Your task to perform on an android device: turn smart compose on in the gmail app Image 0: 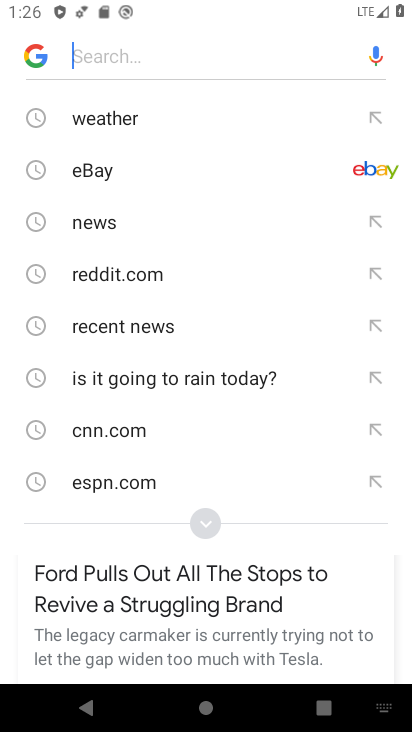
Step 0: press home button
Your task to perform on an android device: turn smart compose on in the gmail app Image 1: 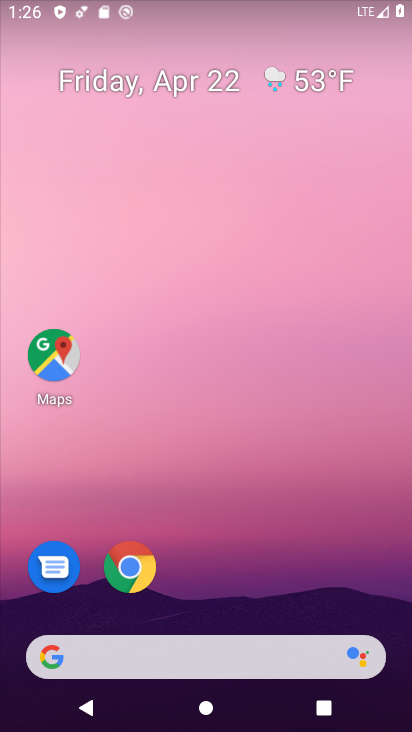
Step 1: drag from (370, 621) to (268, 117)
Your task to perform on an android device: turn smart compose on in the gmail app Image 2: 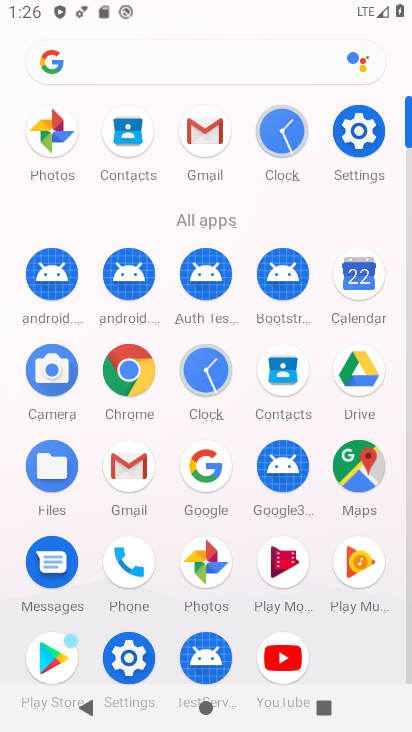
Step 2: click (122, 463)
Your task to perform on an android device: turn smart compose on in the gmail app Image 3: 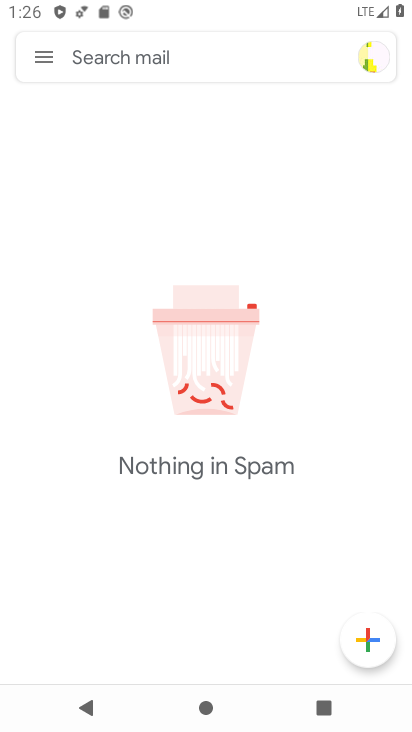
Step 3: click (42, 59)
Your task to perform on an android device: turn smart compose on in the gmail app Image 4: 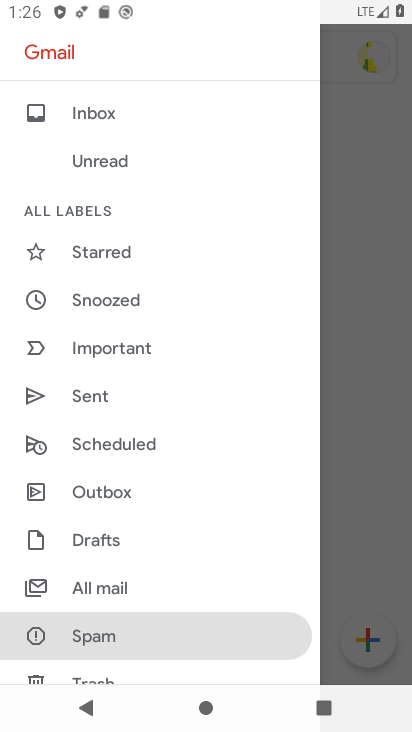
Step 4: drag from (204, 534) to (193, 262)
Your task to perform on an android device: turn smart compose on in the gmail app Image 5: 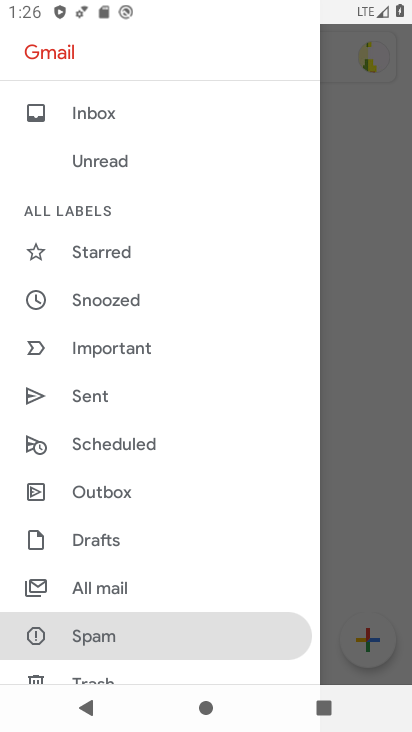
Step 5: drag from (237, 566) to (212, 239)
Your task to perform on an android device: turn smart compose on in the gmail app Image 6: 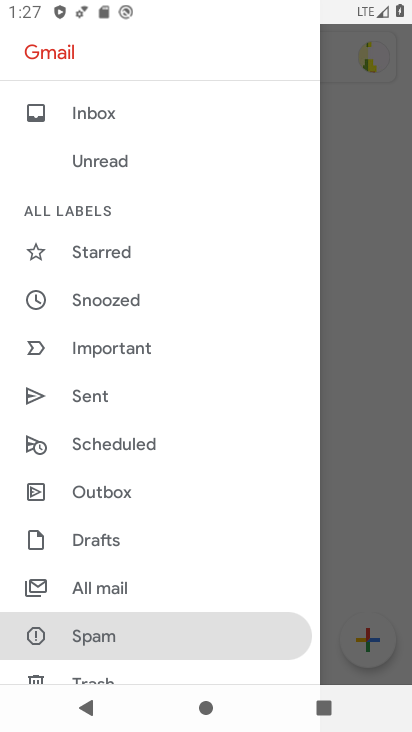
Step 6: drag from (203, 506) to (232, 170)
Your task to perform on an android device: turn smart compose on in the gmail app Image 7: 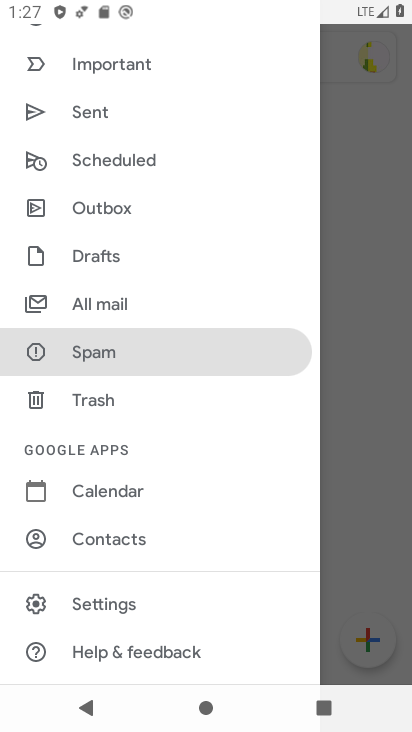
Step 7: click (103, 601)
Your task to perform on an android device: turn smart compose on in the gmail app Image 8: 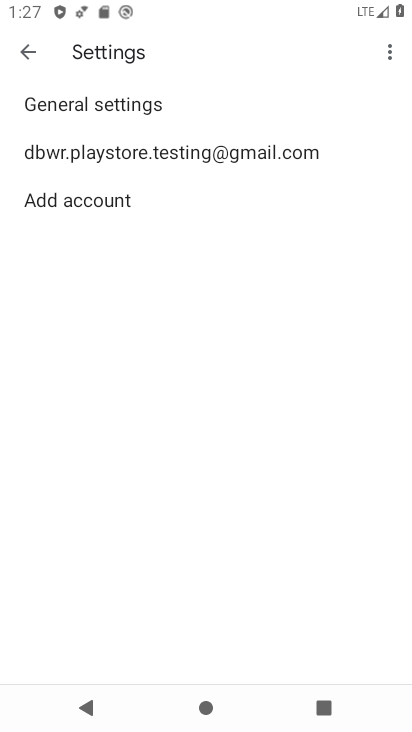
Step 8: click (149, 148)
Your task to perform on an android device: turn smart compose on in the gmail app Image 9: 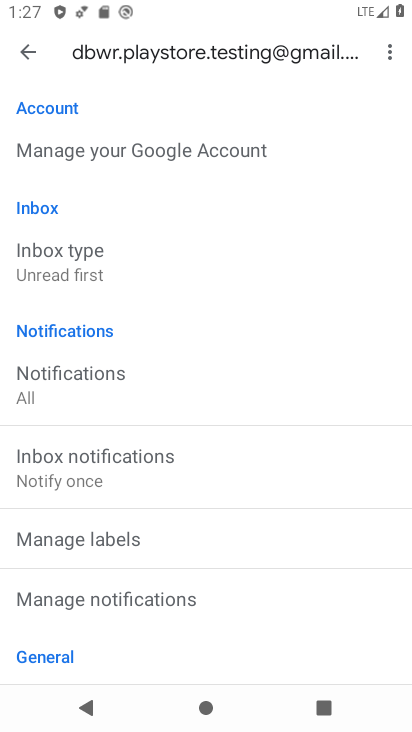
Step 9: task complete